Your task to perform on an android device: What's the weather going to be this weekend? Image 0: 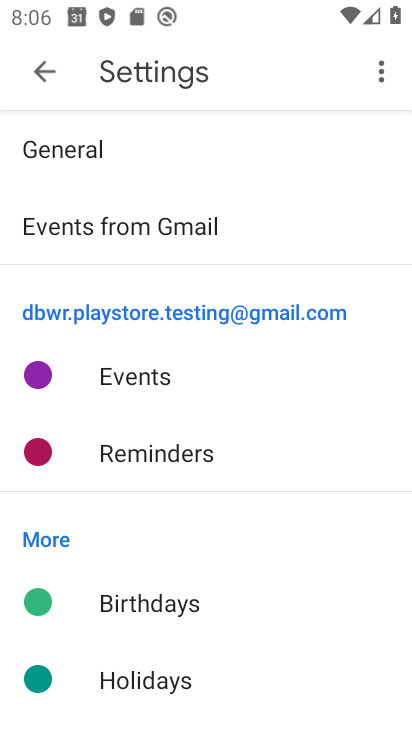
Step 0: press home button
Your task to perform on an android device: What's the weather going to be this weekend? Image 1: 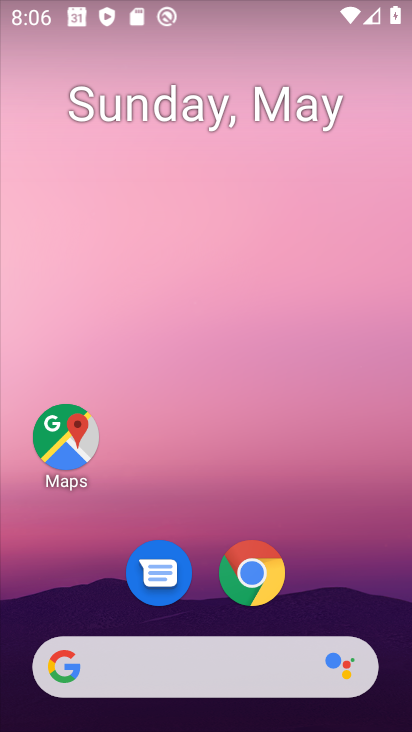
Step 1: drag from (359, 609) to (314, 137)
Your task to perform on an android device: What's the weather going to be this weekend? Image 2: 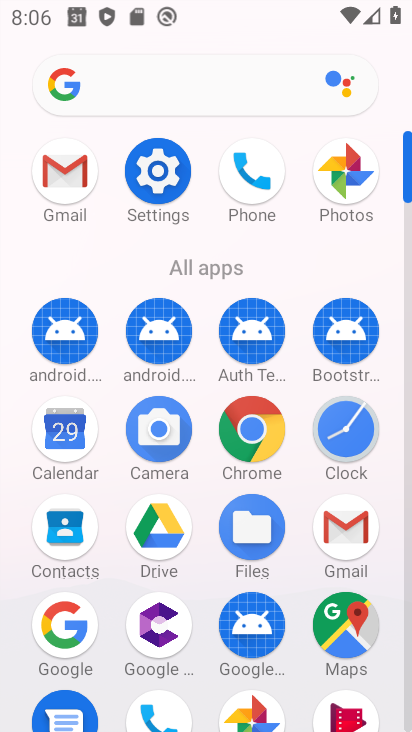
Step 2: click (267, 444)
Your task to perform on an android device: What's the weather going to be this weekend? Image 3: 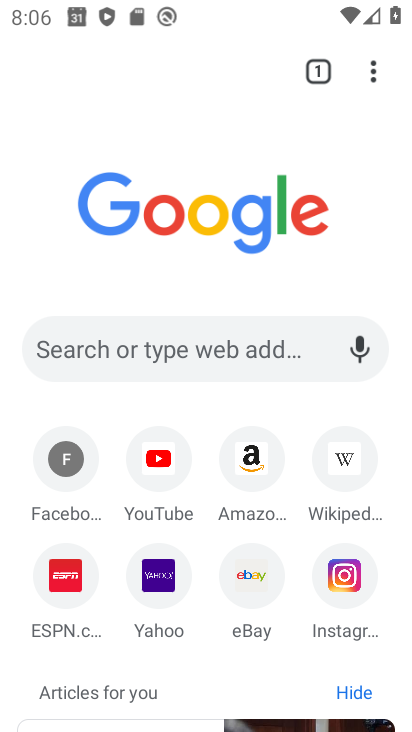
Step 3: click (254, 350)
Your task to perform on an android device: What's the weather going to be this weekend? Image 4: 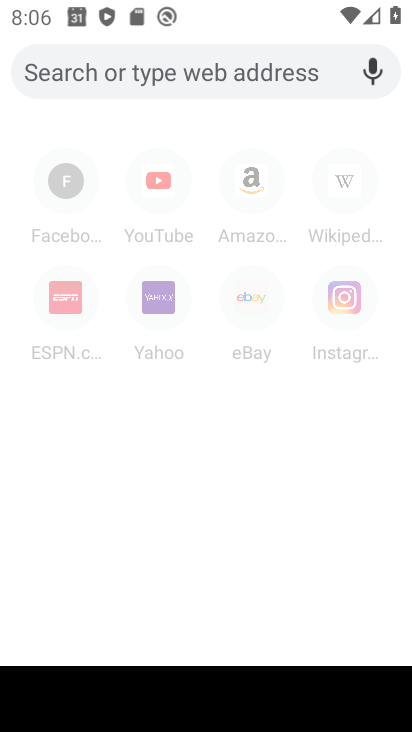
Step 4: type "What's the weather going to be this weekend?"
Your task to perform on an android device: What's the weather going to be this weekend? Image 5: 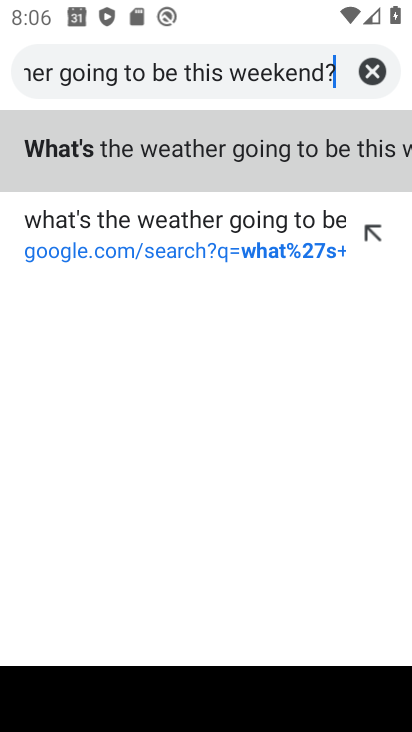
Step 5: click (321, 214)
Your task to perform on an android device: What's the weather going to be this weekend? Image 6: 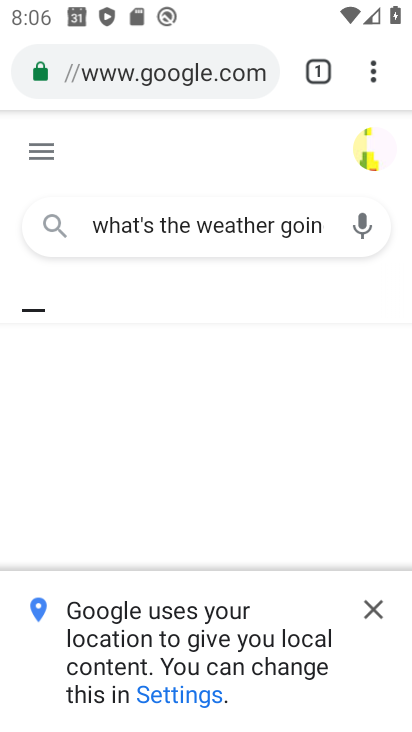
Step 6: click (371, 614)
Your task to perform on an android device: What's the weather going to be this weekend? Image 7: 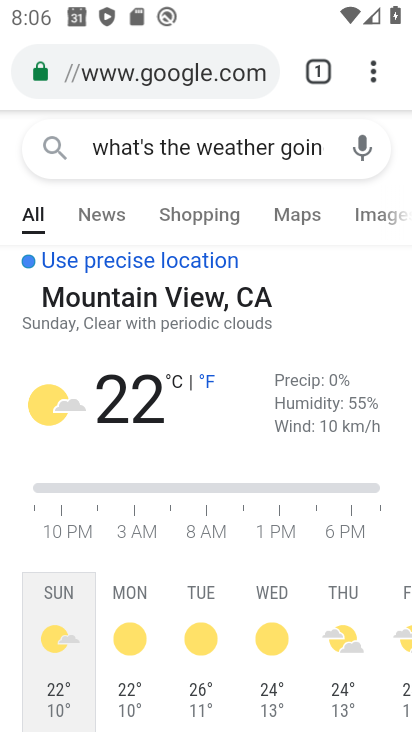
Step 7: task complete